Your task to perform on an android device: Go to Reddit.com Image 0: 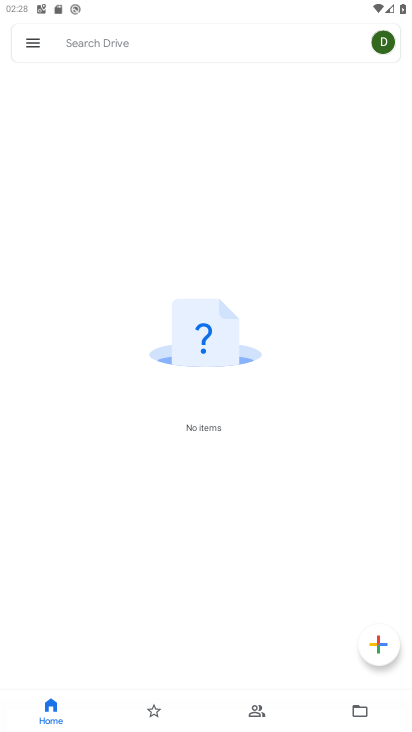
Step 0: press home button
Your task to perform on an android device: Go to Reddit.com Image 1: 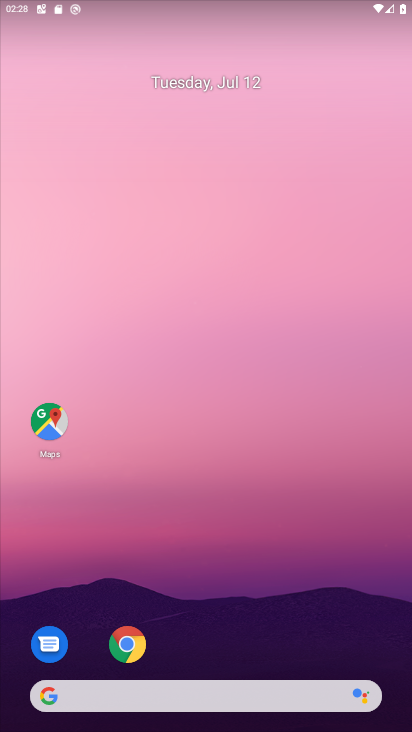
Step 1: drag from (218, 654) to (165, 148)
Your task to perform on an android device: Go to Reddit.com Image 2: 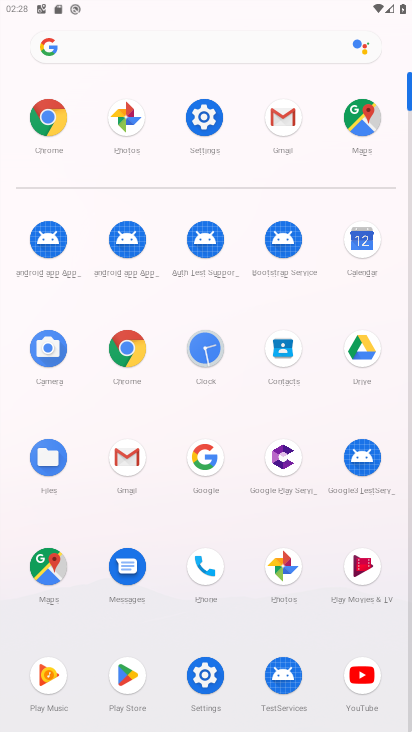
Step 2: click (40, 124)
Your task to perform on an android device: Go to Reddit.com Image 3: 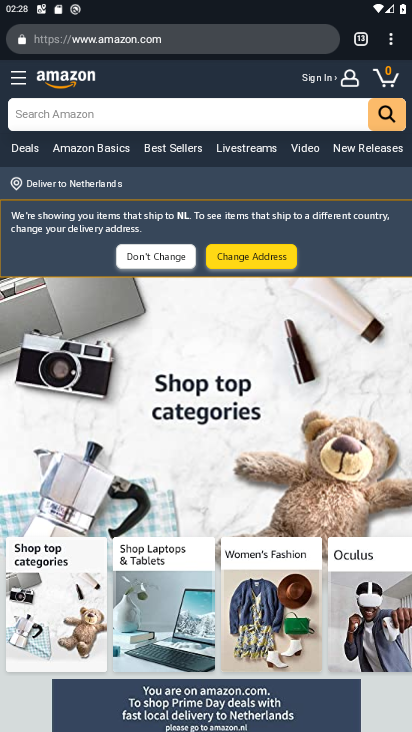
Step 3: click (349, 38)
Your task to perform on an android device: Go to Reddit.com Image 4: 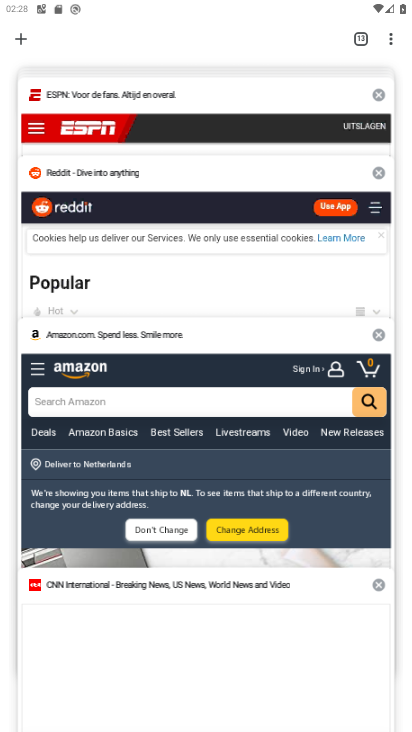
Step 4: click (95, 256)
Your task to perform on an android device: Go to Reddit.com Image 5: 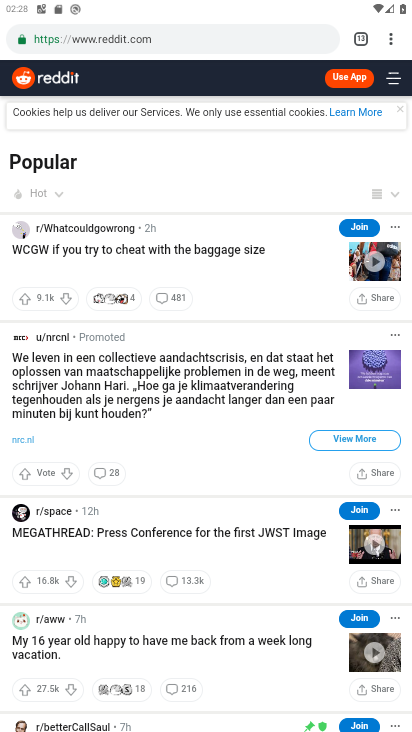
Step 5: task complete